Your task to perform on an android device: empty trash in the gmail app Image 0: 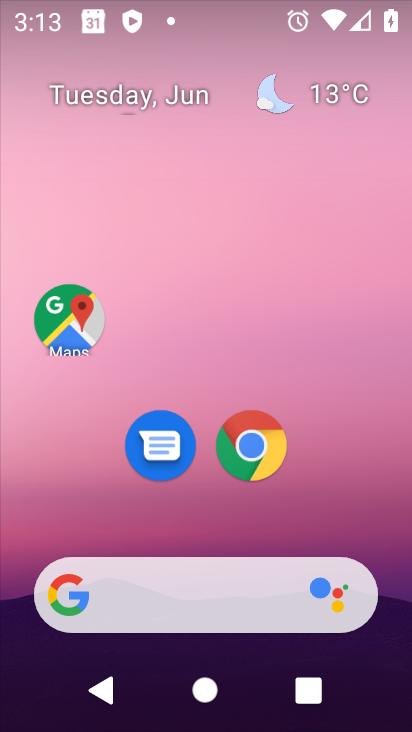
Step 0: drag from (402, 602) to (377, 198)
Your task to perform on an android device: empty trash in the gmail app Image 1: 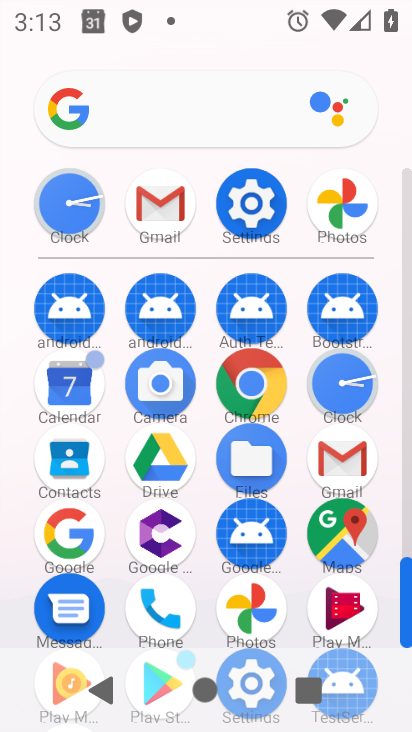
Step 1: click (403, 520)
Your task to perform on an android device: empty trash in the gmail app Image 2: 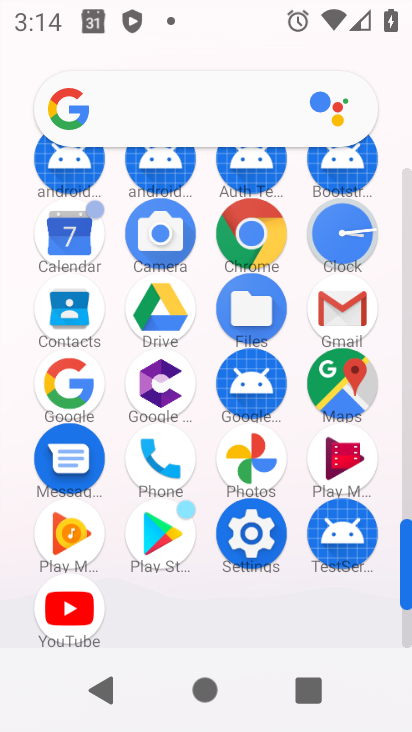
Step 2: click (343, 312)
Your task to perform on an android device: empty trash in the gmail app Image 3: 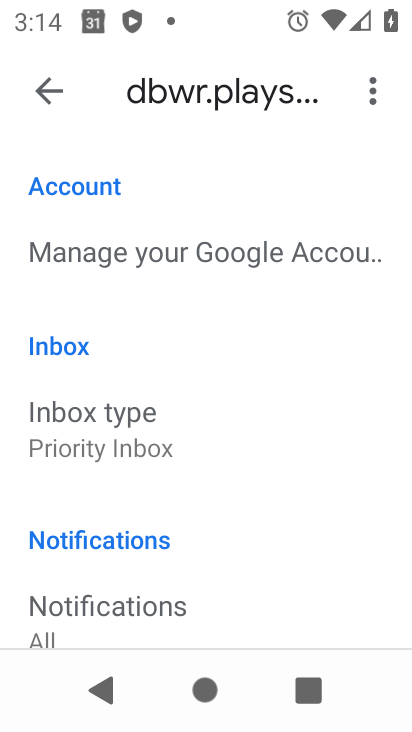
Step 3: press back button
Your task to perform on an android device: empty trash in the gmail app Image 4: 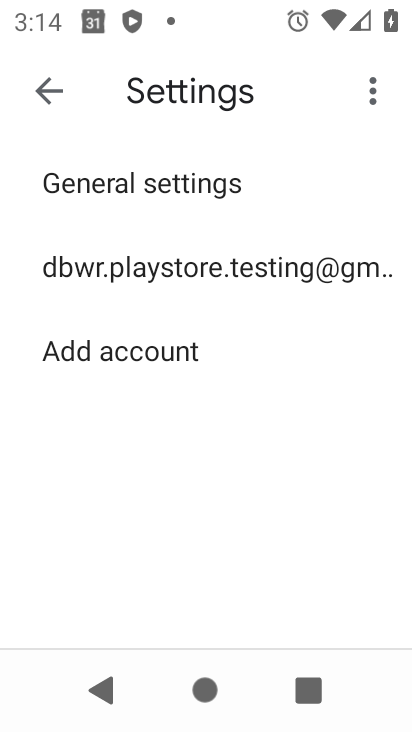
Step 4: press back button
Your task to perform on an android device: empty trash in the gmail app Image 5: 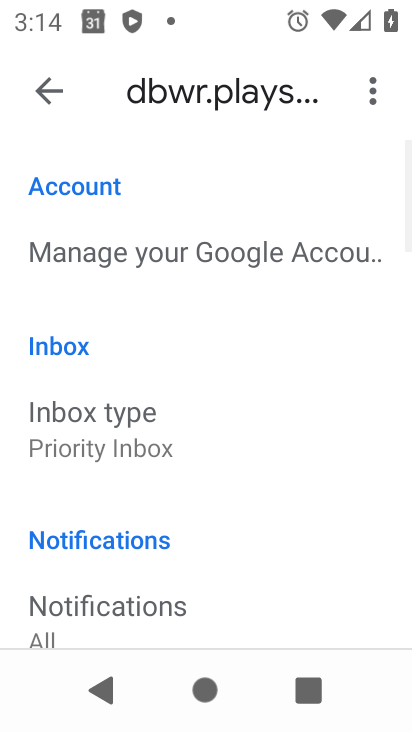
Step 5: press back button
Your task to perform on an android device: empty trash in the gmail app Image 6: 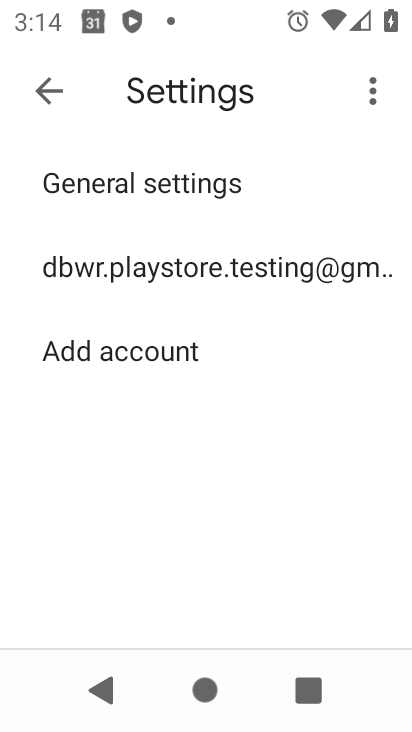
Step 6: press back button
Your task to perform on an android device: empty trash in the gmail app Image 7: 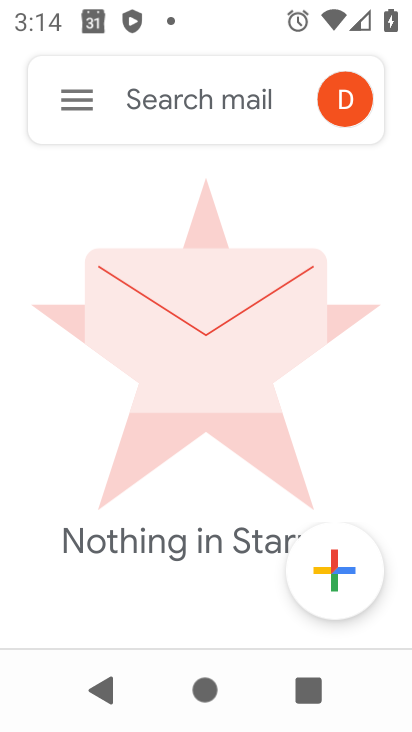
Step 7: click (76, 98)
Your task to perform on an android device: empty trash in the gmail app Image 8: 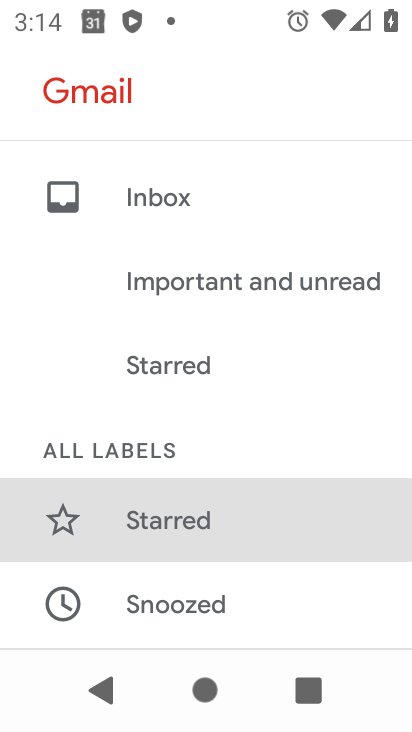
Step 8: drag from (313, 582) to (273, 170)
Your task to perform on an android device: empty trash in the gmail app Image 9: 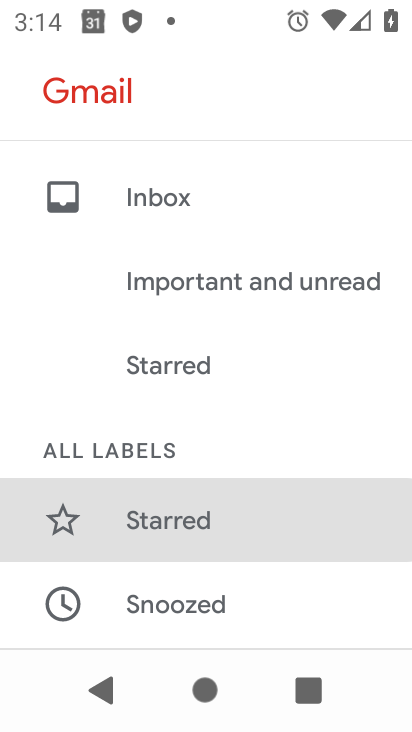
Step 9: drag from (256, 597) to (286, 192)
Your task to perform on an android device: empty trash in the gmail app Image 10: 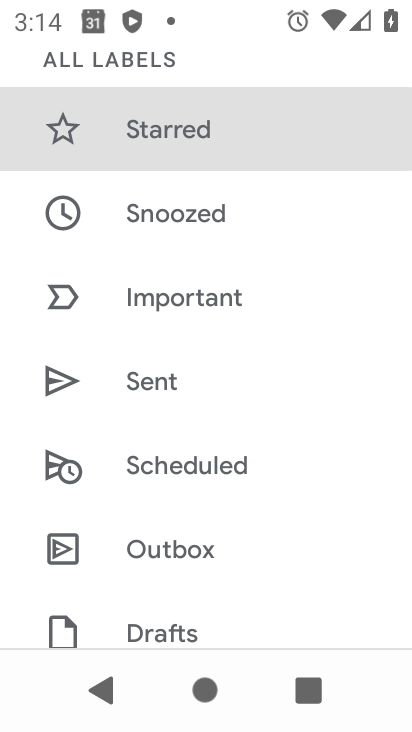
Step 10: drag from (267, 600) to (274, 157)
Your task to perform on an android device: empty trash in the gmail app Image 11: 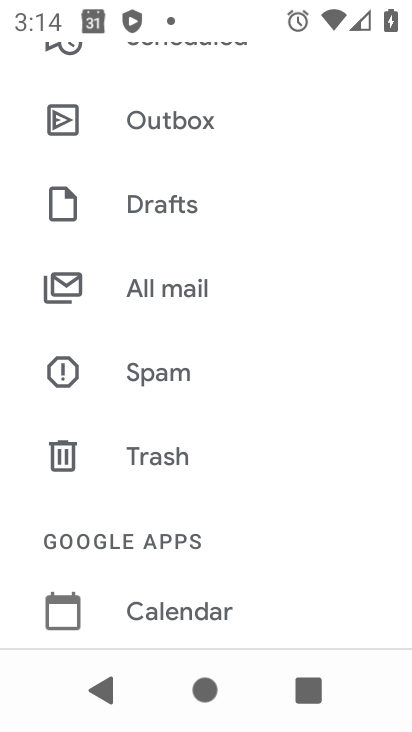
Step 11: click (145, 451)
Your task to perform on an android device: empty trash in the gmail app Image 12: 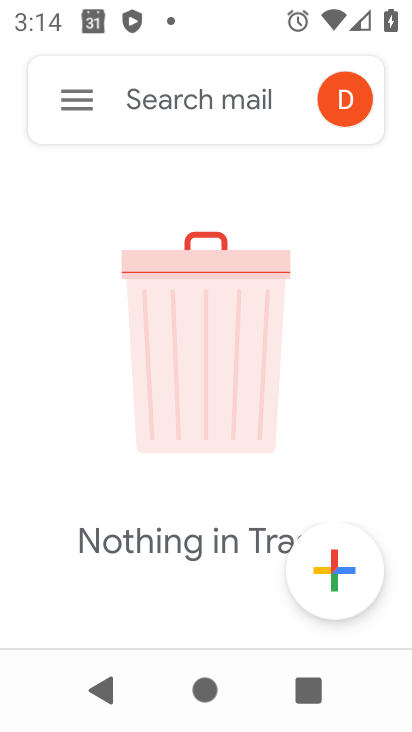
Step 12: task complete